Your task to perform on an android device: remove spam from my inbox in the gmail app Image 0: 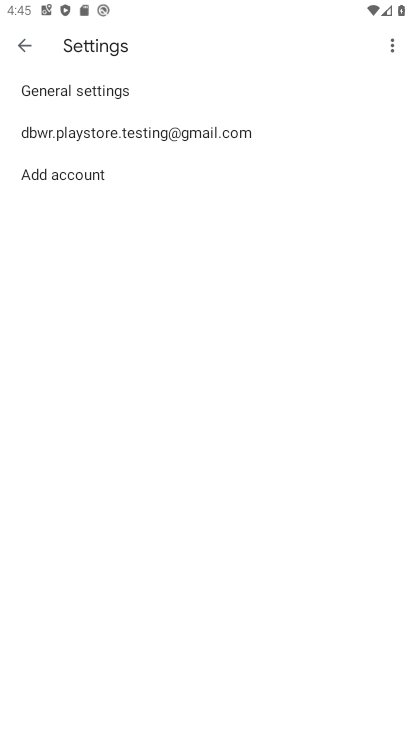
Step 0: press back button
Your task to perform on an android device: remove spam from my inbox in the gmail app Image 1: 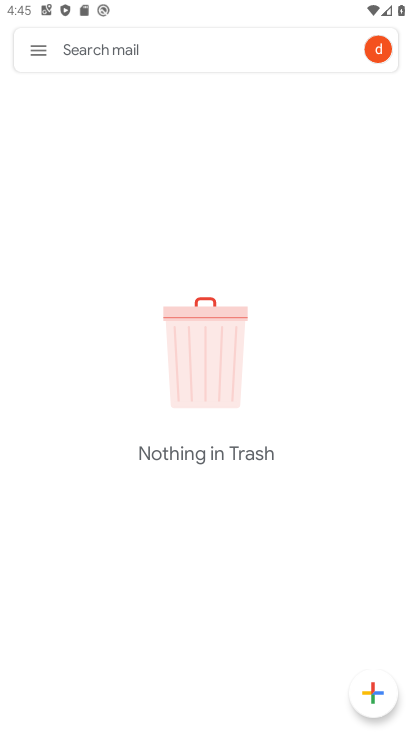
Step 1: click (38, 44)
Your task to perform on an android device: remove spam from my inbox in the gmail app Image 2: 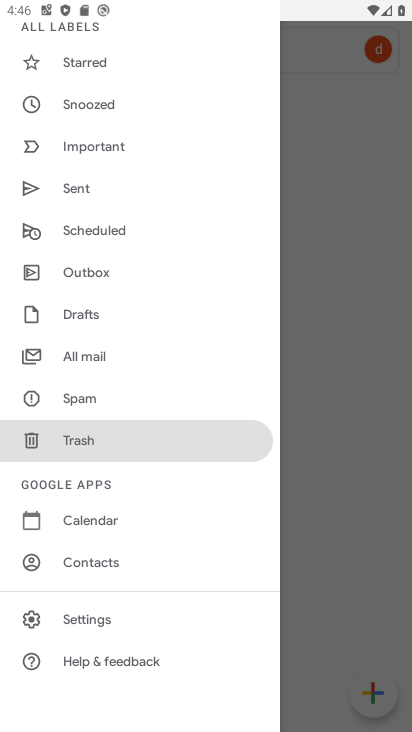
Step 2: click (84, 388)
Your task to perform on an android device: remove spam from my inbox in the gmail app Image 3: 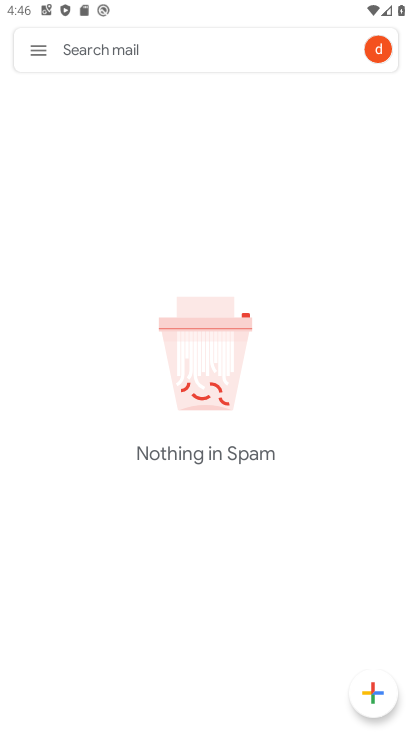
Step 3: task complete